Your task to perform on an android device: Turn on the flashlight Image 0: 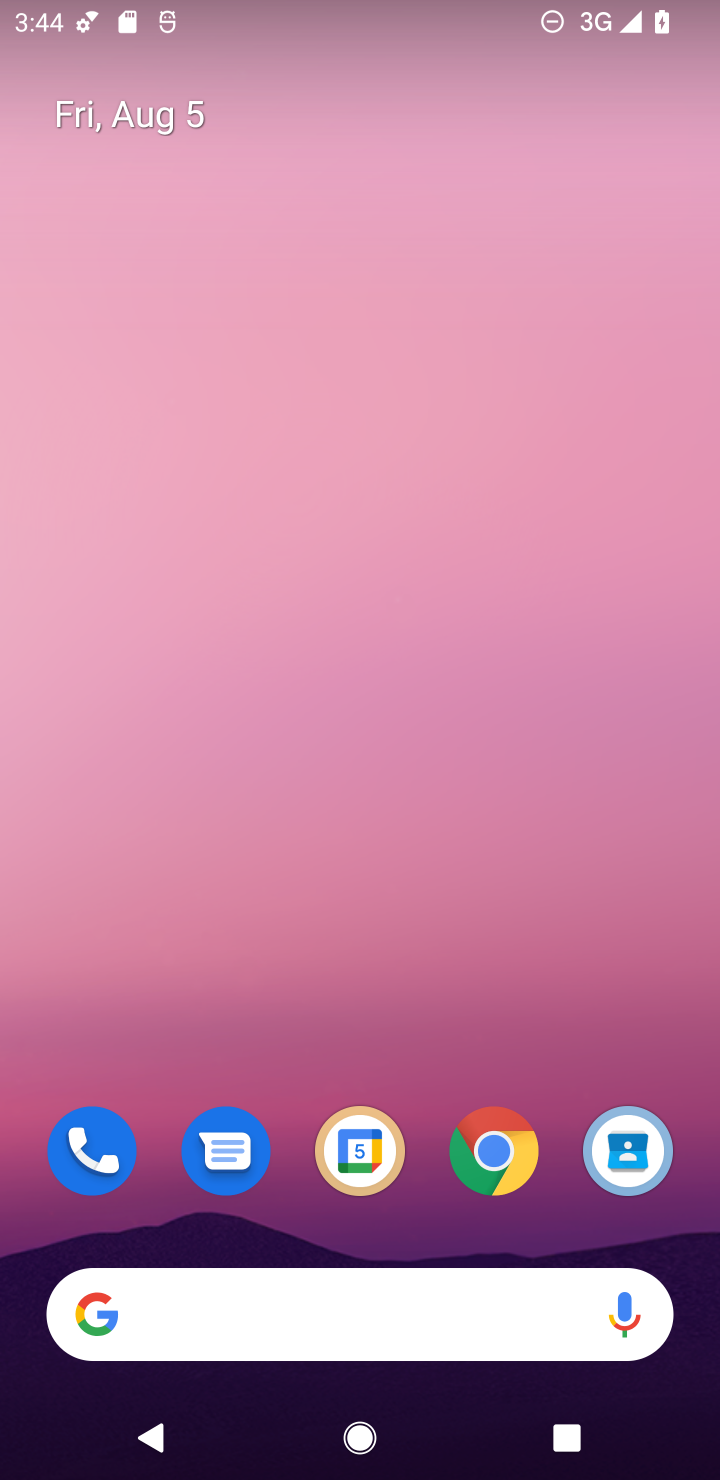
Step 0: drag from (257, 149) to (314, 33)
Your task to perform on an android device: Turn on the flashlight Image 1: 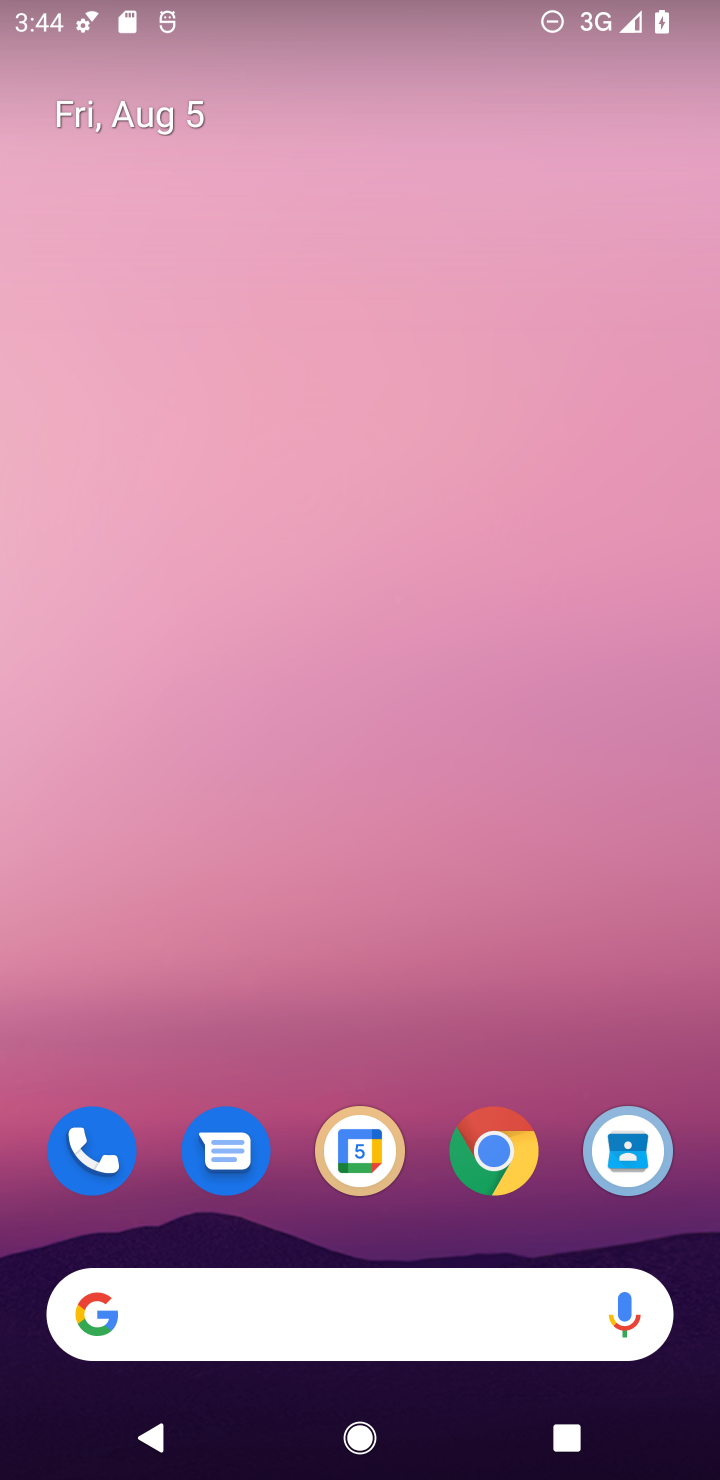
Step 1: drag from (345, 1047) to (224, 135)
Your task to perform on an android device: Turn on the flashlight Image 2: 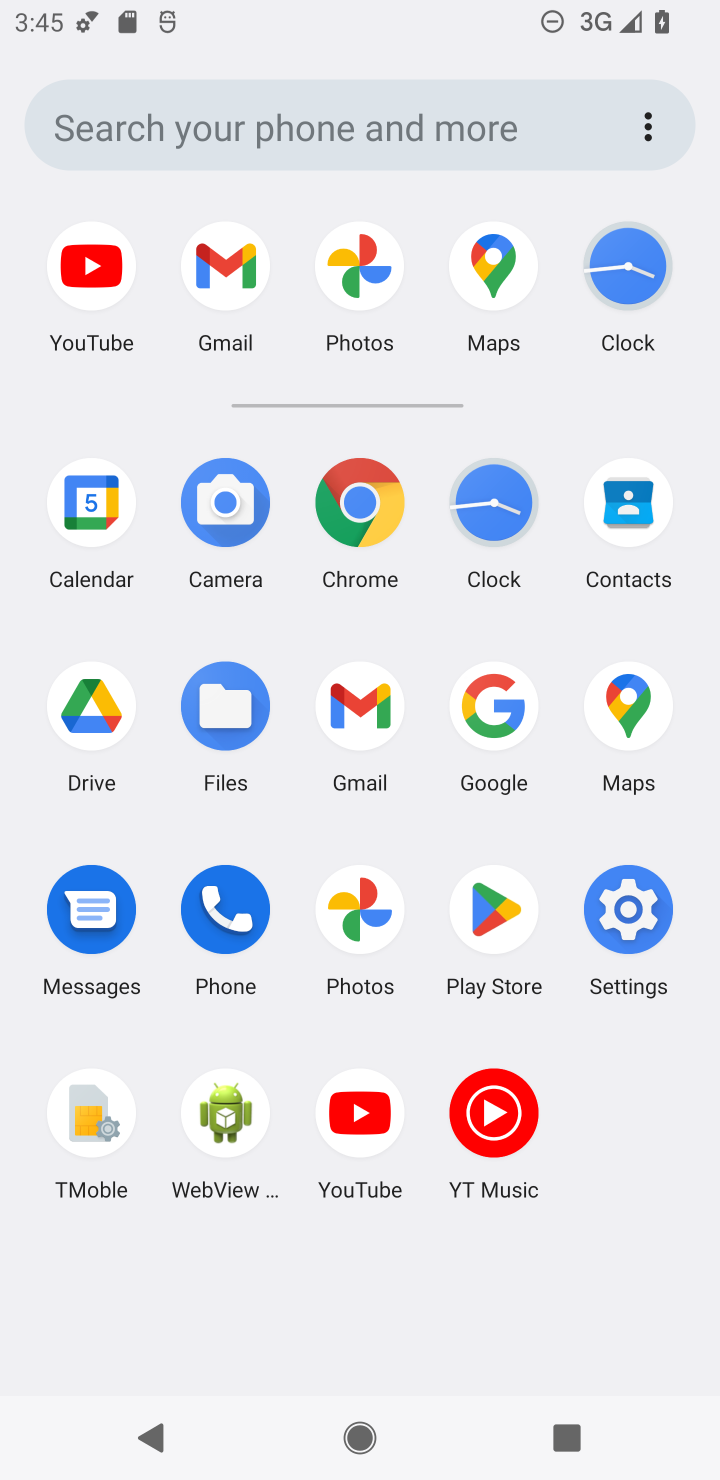
Step 2: click (638, 948)
Your task to perform on an android device: Turn on the flashlight Image 3: 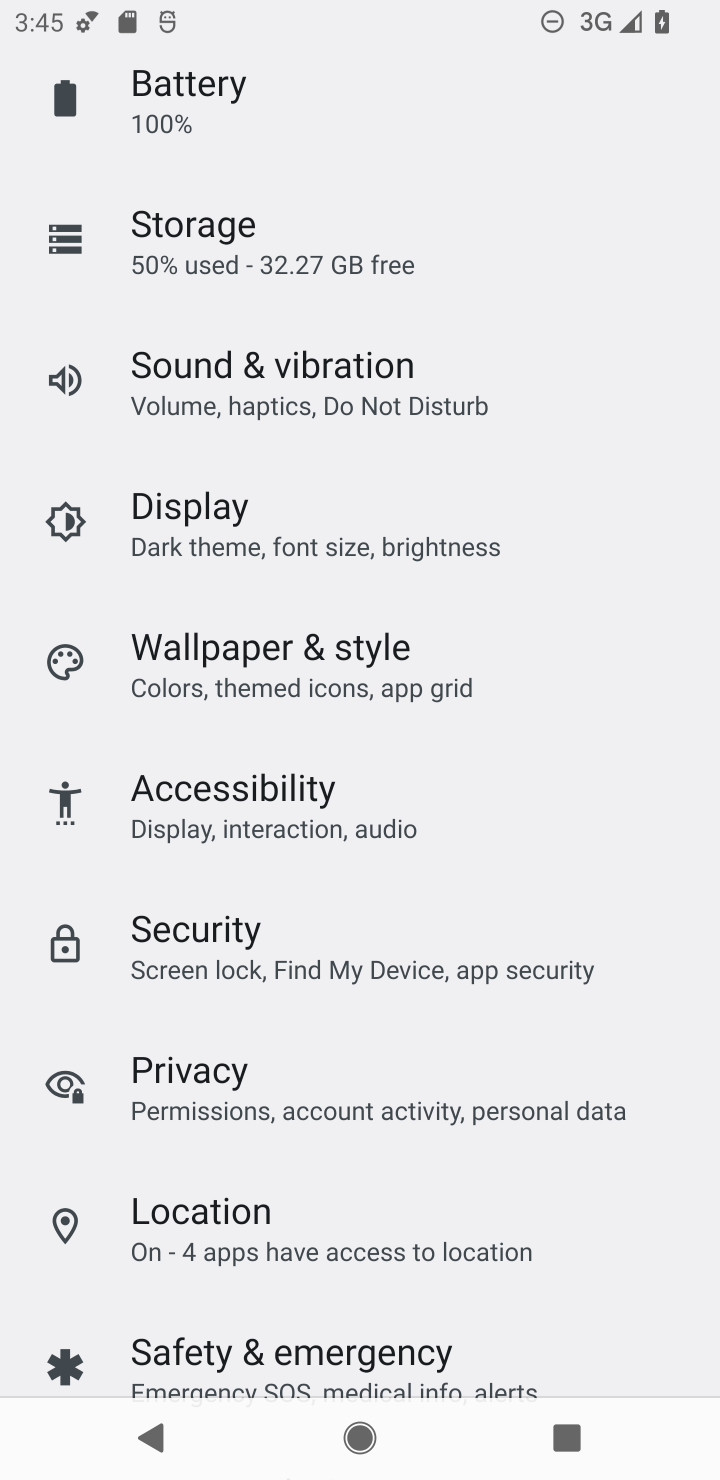
Step 3: task complete